Your task to perform on an android device: toggle wifi Image 0: 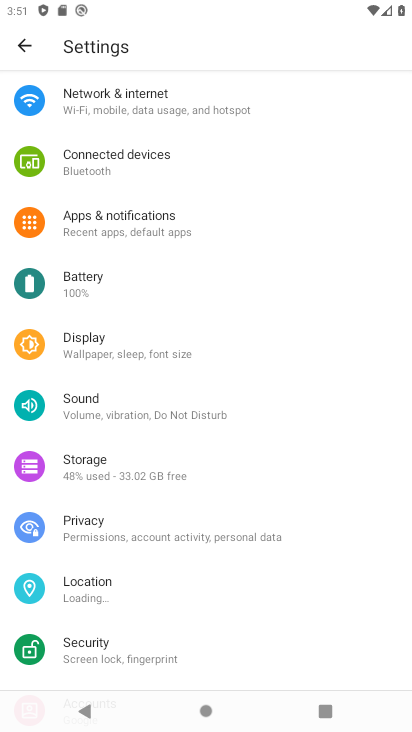
Step 0: click (24, 48)
Your task to perform on an android device: toggle wifi Image 1: 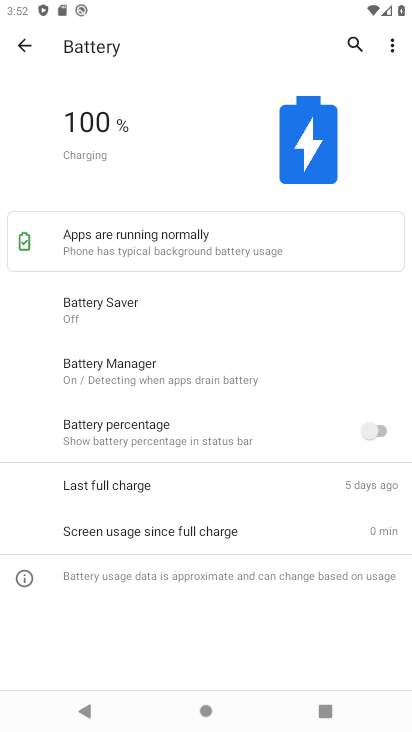
Step 1: click (148, 112)
Your task to perform on an android device: toggle wifi Image 2: 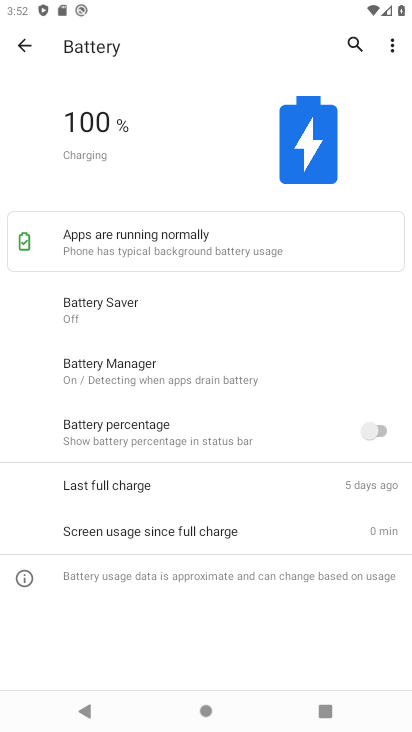
Step 2: click (37, 51)
Your task to perform on an android device: toggle wifi Image 3: 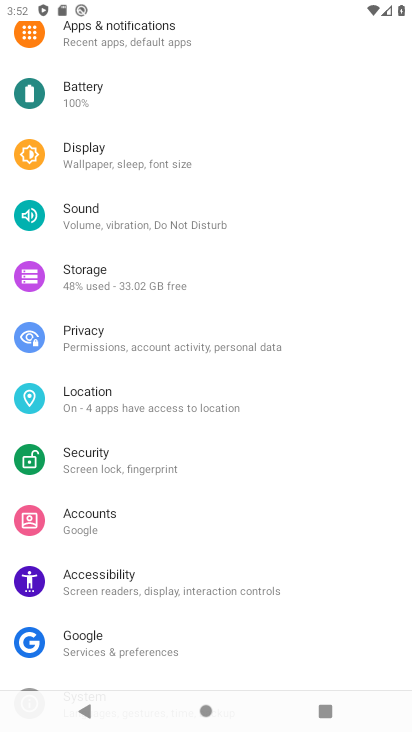
Step 3: drag from (107, 120) to (155, 480)
Your task to perform on an android device: toggle wifi Image 4: 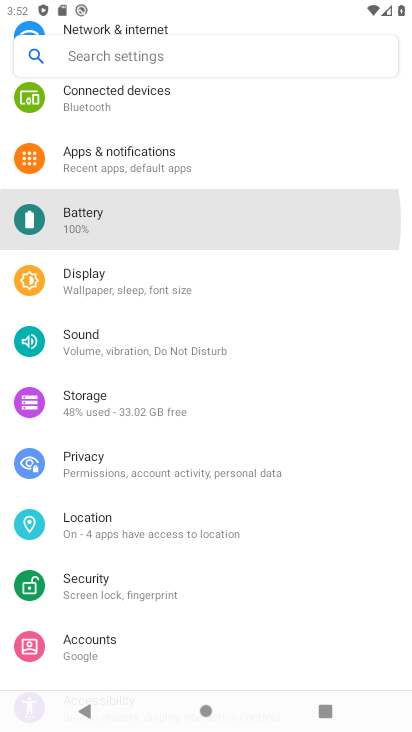
Step 4: drag from (62, 109) to (118, 435)
Your task to perform on an android device: toggle wifi Image 5: 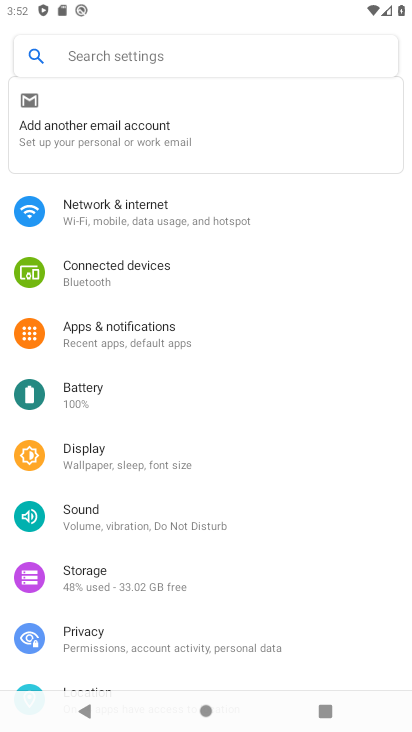
Step 5: click (118, 221)
Your task to perform on an android device: toggle wifi Image 6: 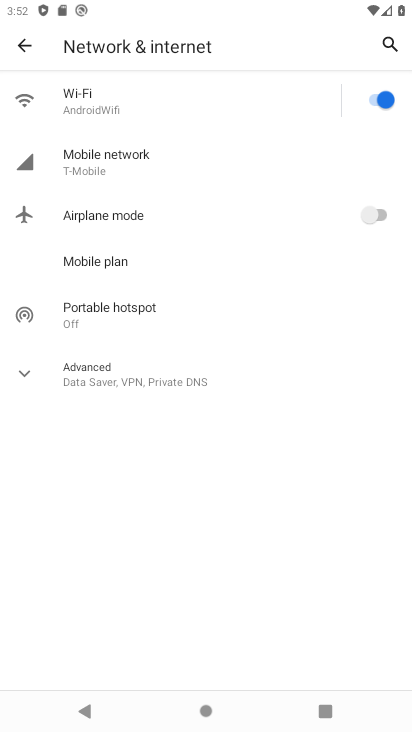
Step 6: click (375, 96)
Your task to perform on an android device: toggle wifi Image 7: 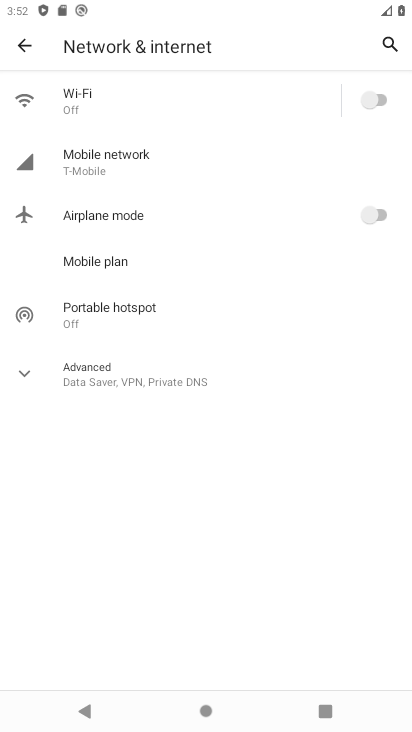
Step 7: task complete